Your task to perform on an android device: change notifications settings Image 0: 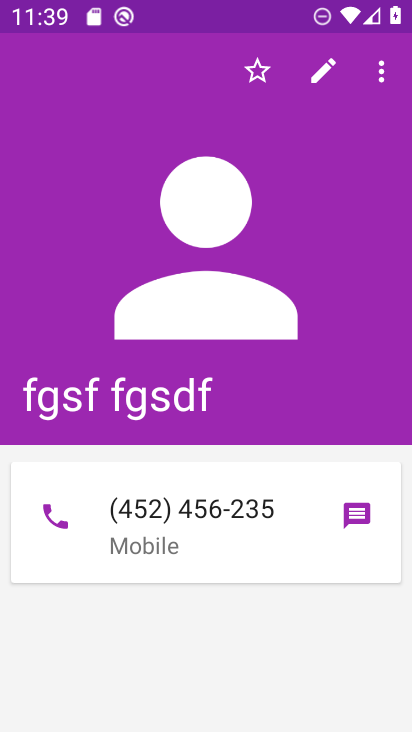
Step 0: press home button
Your task to perform on an android device: change notifications settings Image 1: 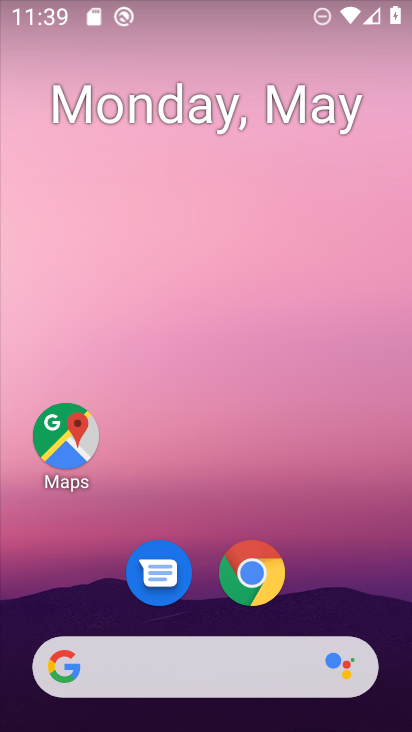
Step 1: drag from (328, 550) to (221, 63)
Your task to perform on an android device: change notifications settings Image 2: 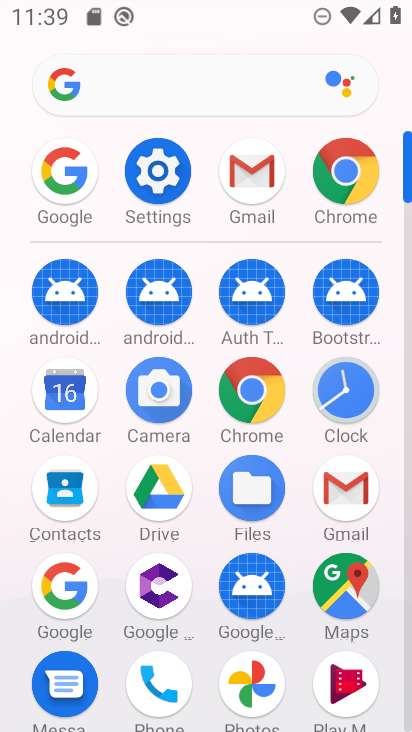
Step 2: click (151, 186)
Your task to perform on an android device: change notifications settings Image 3: 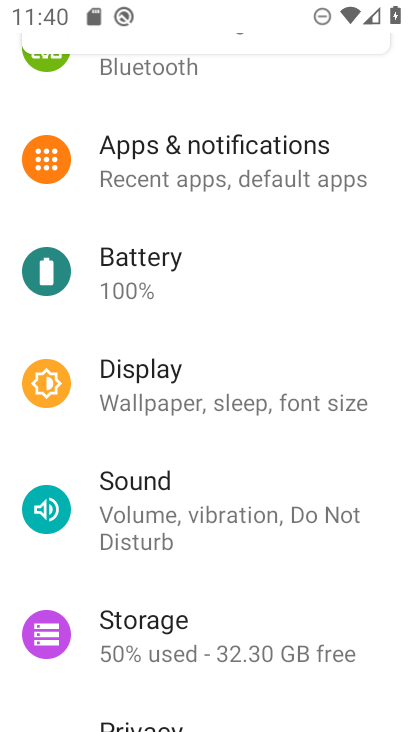
Step 3: click (216, 141)
Your task to perform on an android device: change notifications settings Image 4: 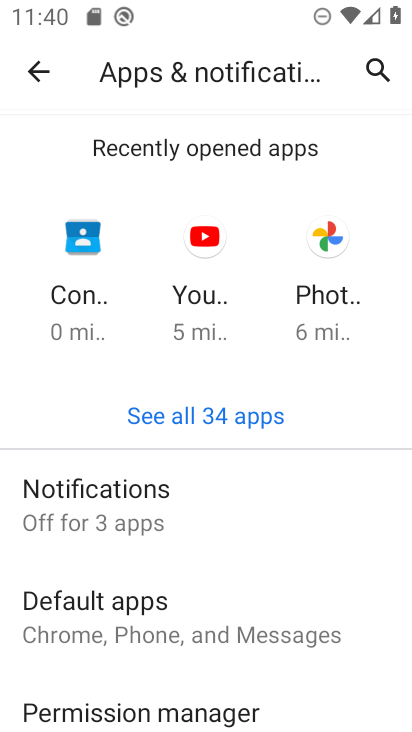
Step 4: click (213, 517)
Your task to perform on an android device: change notifications settings Image 5: 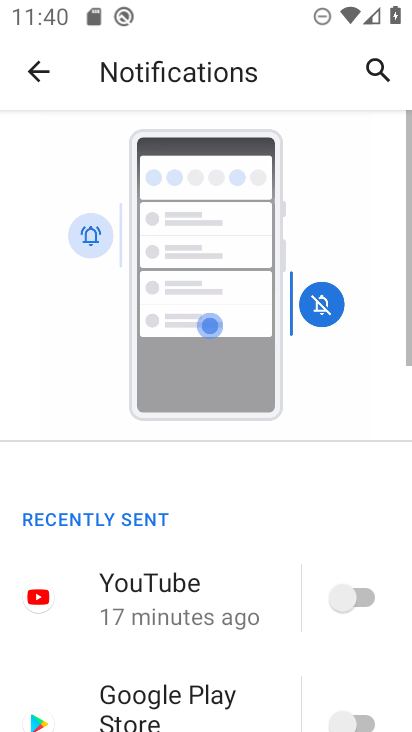
Step 5: drag from (236, 606) to (227, 129)
Your task to perform on an android device: change notifications settings Image 6: 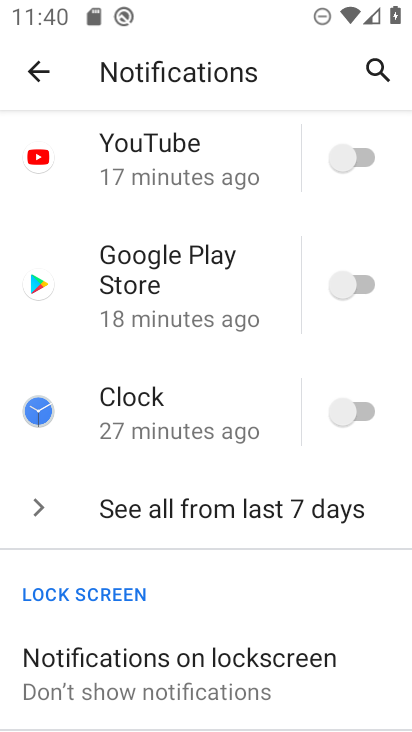
Step 6: click (340, 153)
Your task to perform on an android device: change notifications settings Image 7: 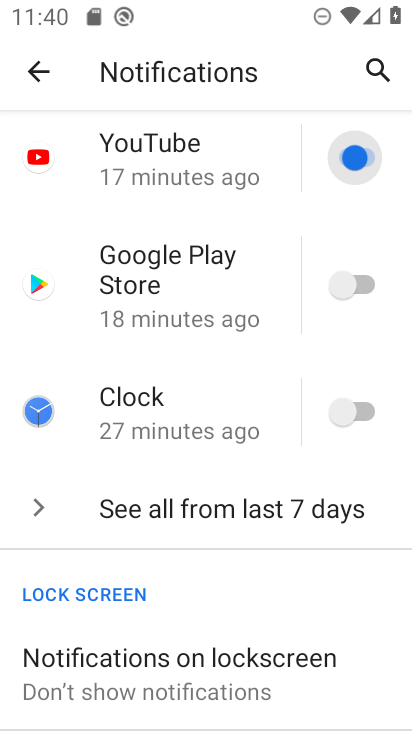
Step 7: click (350, 281)
Your task to perform on an android device: change notifications settings Image 8: 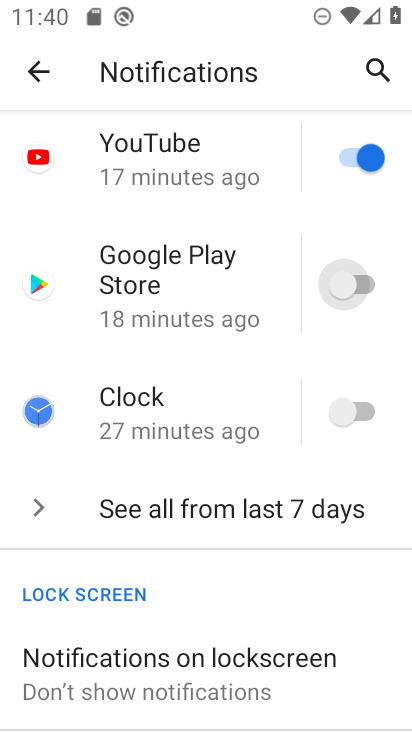
Step 8: click (349, 399)
Your task to perform on an android device: change notifications settings Image 9: 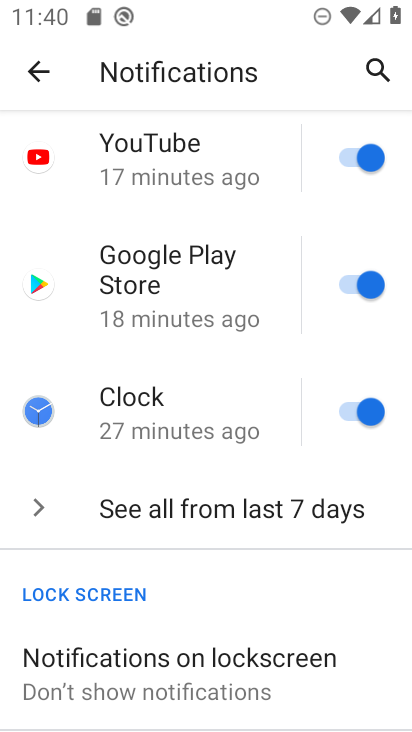
Step 9: task complete